Your task to perform on an android device: Open ESPN.com Image 0: 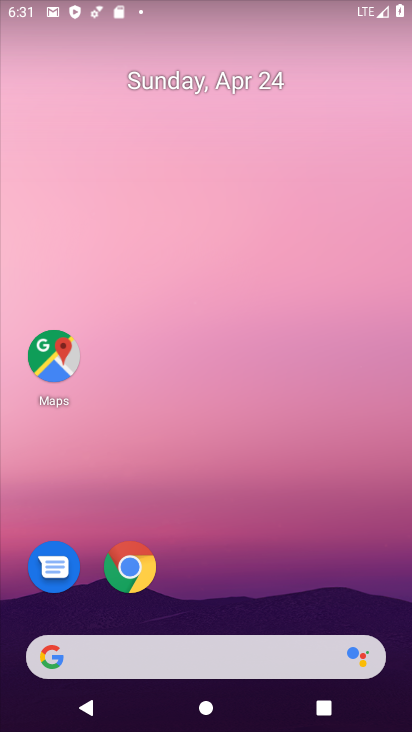
Step 0: drag from (307, 609) to (250, 42)
Your task to perform on an android device: Open ESPN.com Image 1: 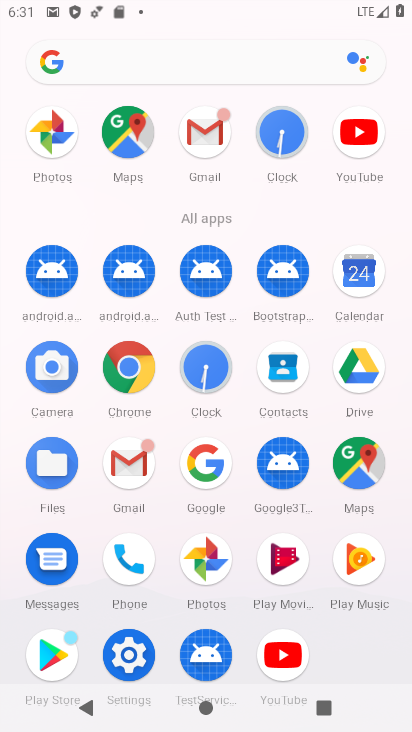
Step 1: click (141, 370)
Your task to perform on an android device: Open ESPN.com Image 2: 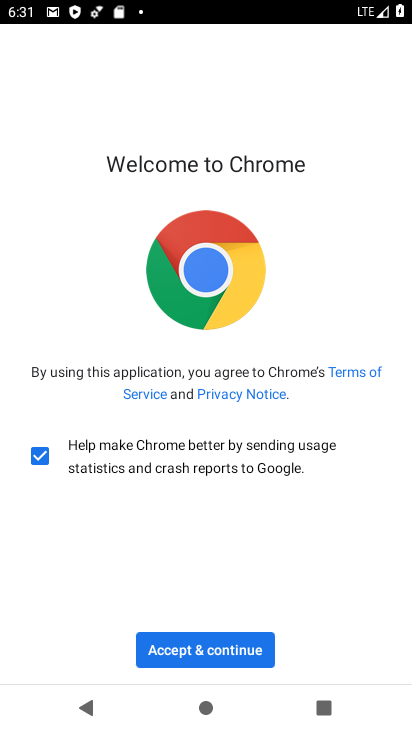
Step 2: click (191, 642)
Your task to perform on an android device: Open ESPN.com Image 3: 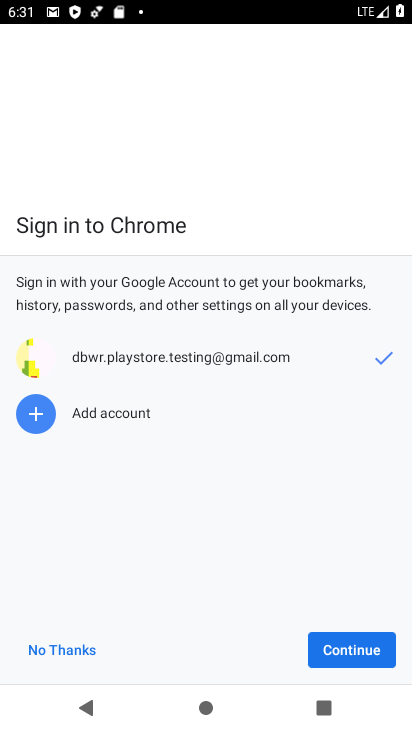
Step 3: click (324, 646)
Your task to perform on an android device: Open ESPN.com Image 4: 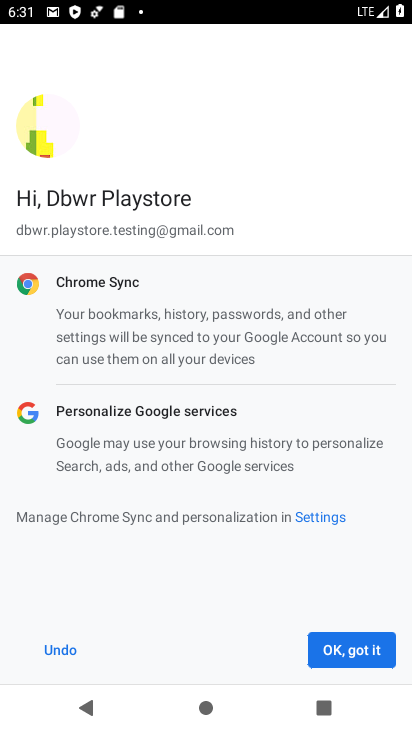
Step 4: click (324, 646)
Your task to perform on an android device: Open ESPN.com Image 5: 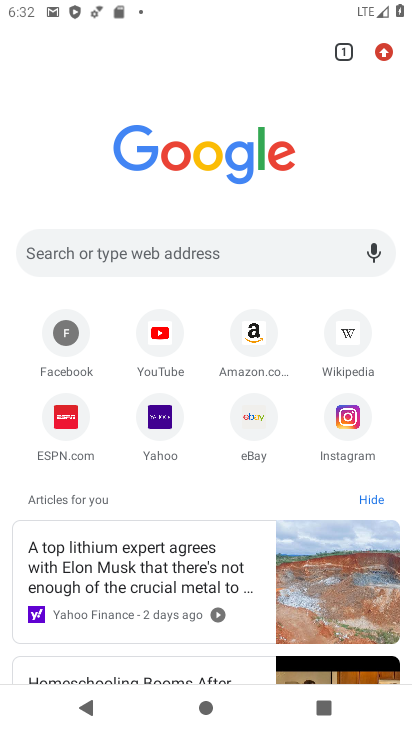
Step 5: click (63, 421)
Your task to perform on an android device: Open ESPN.com Image 6: 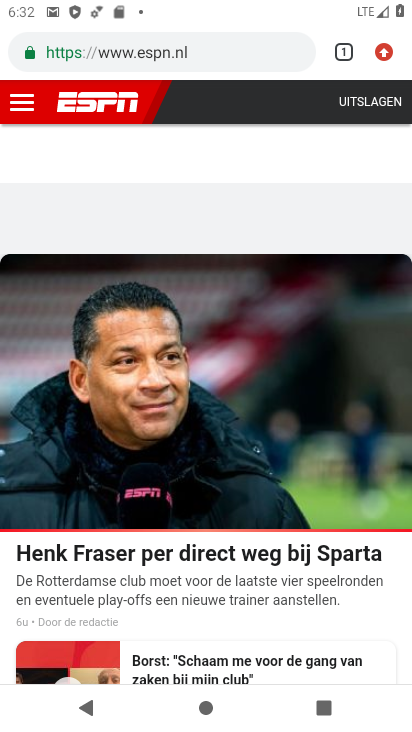
Step 6: task complete